Your task to perform on an android device: Go to location settings Image 0: 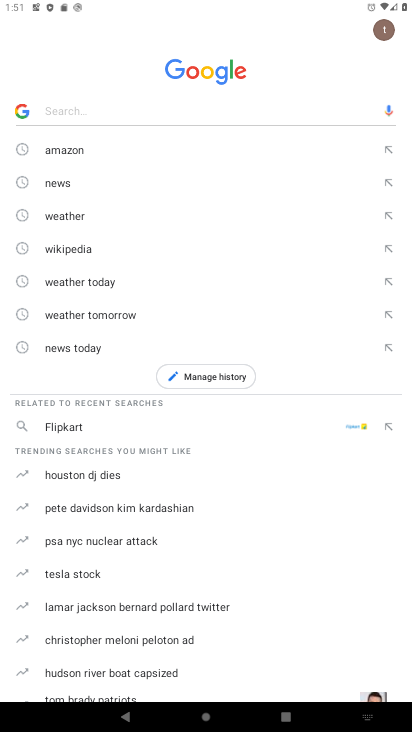
Step 0: press home button
Your task to perform on an android device: Go to location settings Image 1: 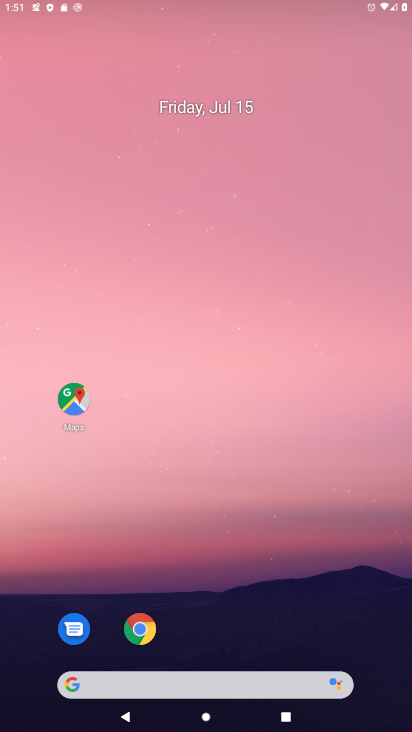
Step 1: drag from (356, 610) to (218, 65)
Your task to perform on an android device: Go to location settings Image 2: 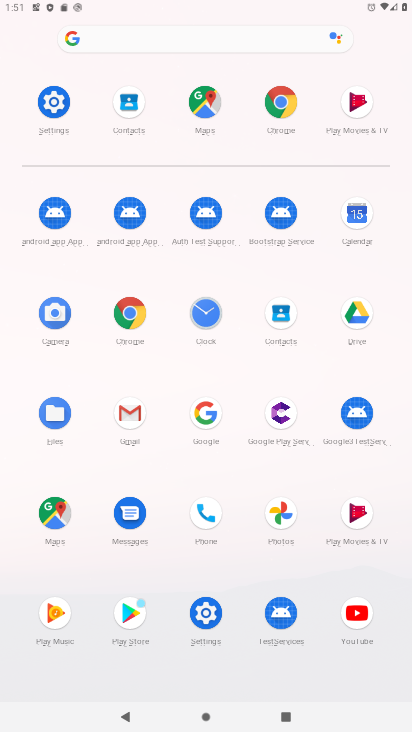
Step 2: click (60, 105)
Your task to perform on an android device: Go to location settings Image 3: 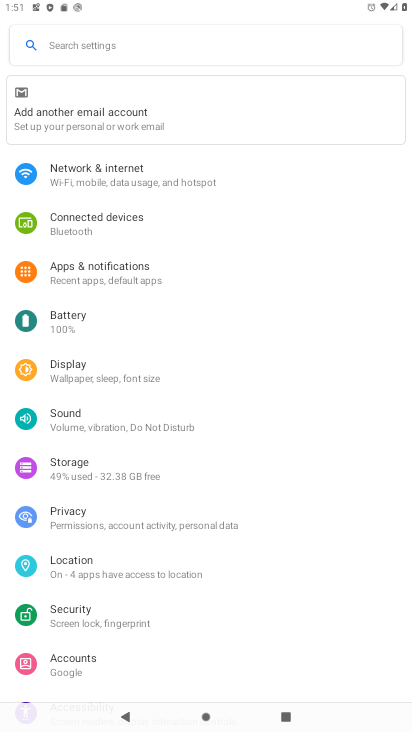
Step 3: click (184, 565)
Your task to perform on an android device: Go to location settings Image 4: 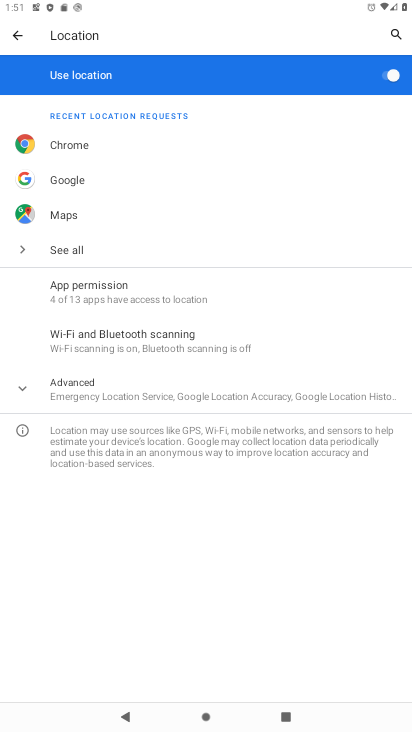
Step 4: task complete